Your task to perform on an android device: Open Reddit.com Image 0: 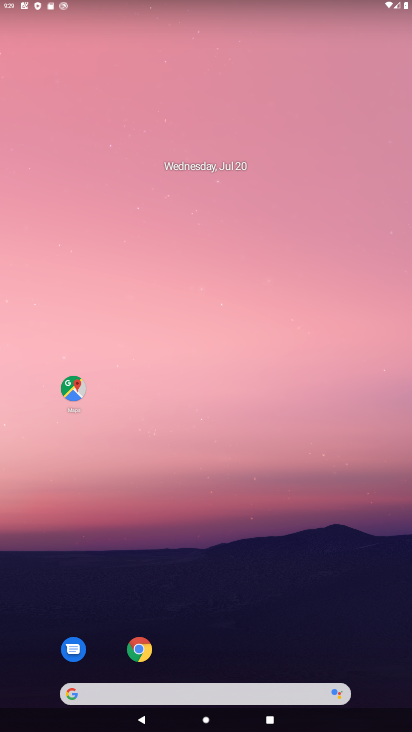
Step 0: click (155, 654)
Your task to perform on an android device: Open Reddit.com Image 1: 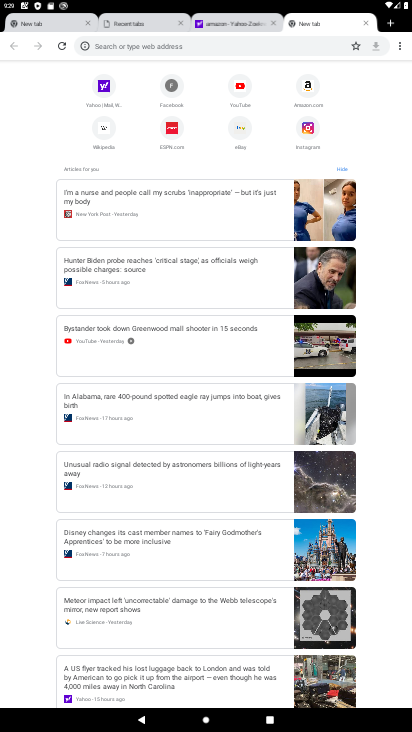
Step 1: click (270, 52)
Your task to perform on an android device: Open Reddit.com Image 2: 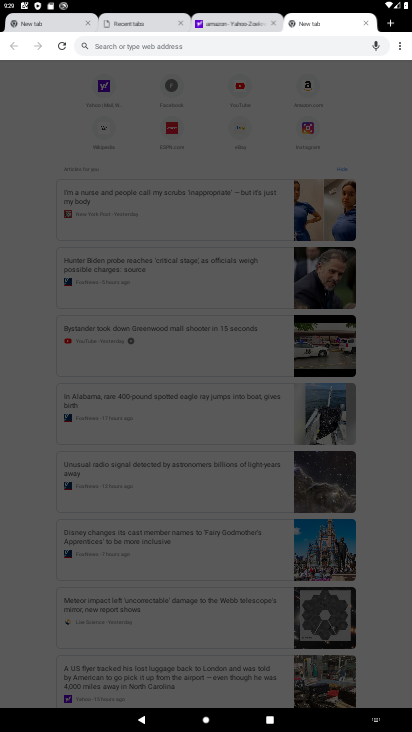
Step 2: type "reddit.com"
Your task to perform on an android device: Open Reddit.com Image 3: 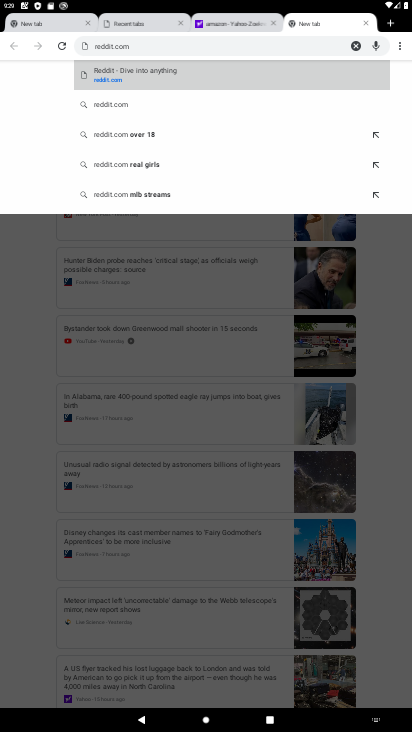
Step 3: click (133, 86)
Your task to perform on an android device: Open Reddit.com Image 4: 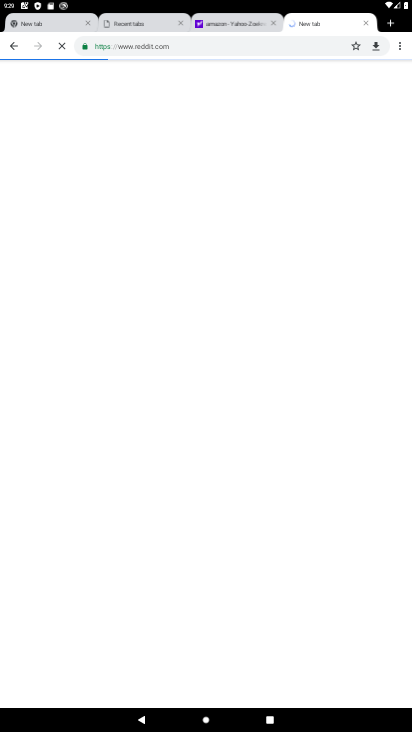
Step 4: task complete